Your task to perform on an android device: Open Youtube and go to "Your channel" Image 0: 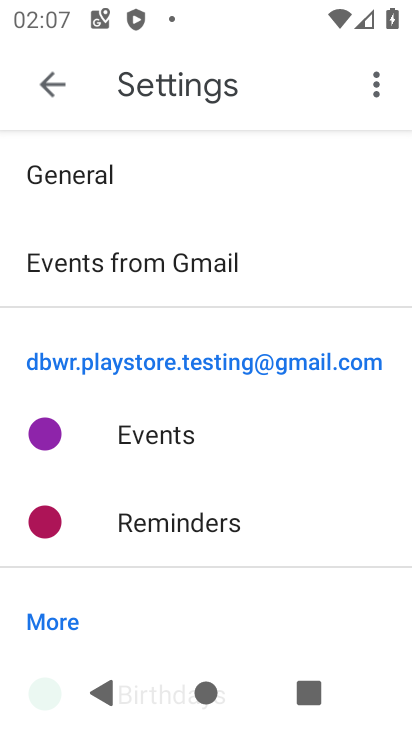
Step 0: press home button
Your task to perform on an android device: Open Youtube and go to "Your channel" Image 1: 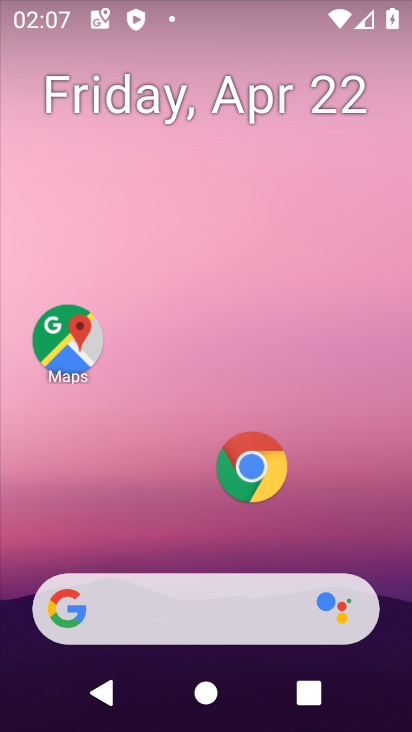
Step 1: drag from (109, 286) to (101, 177)
Your task to perform on an android device: Open Youtube and go to "Your channel" Image 2: 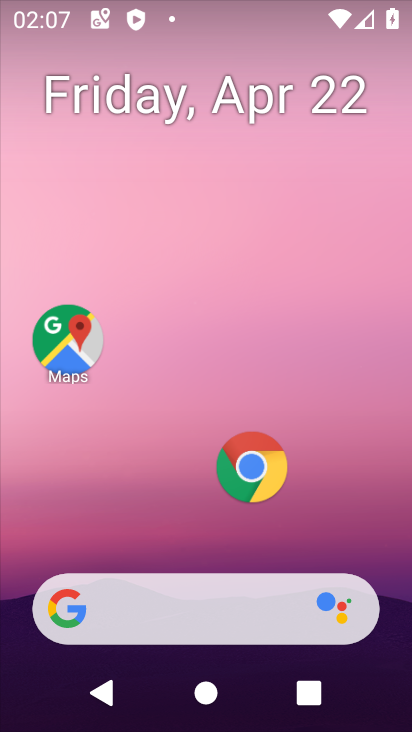
Step 2: drag from (169, 535) to (173, 58)
Your task to perform on an android device: Open Youtube and go to "Your channel" Image 3: 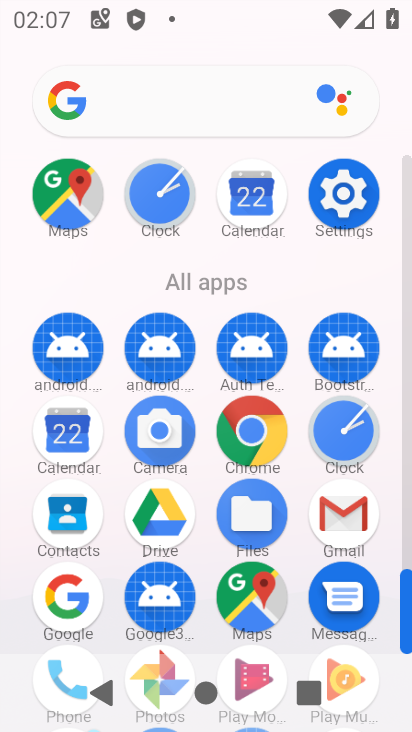
Step 3: drag from (194, 576) to (173, 186)
Your task to perform on an android device: Open Youtube and go to "Your channel" Image 4: 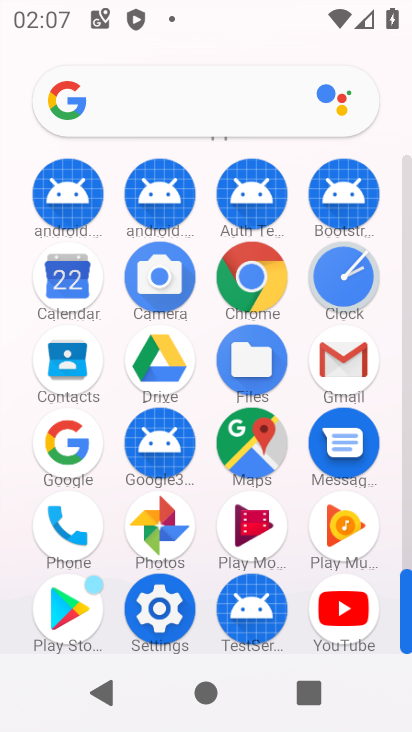
Step 4: click (353, 601)
Your task to perform on an android device: Open Youtube and go to "Your channel" Image 5: 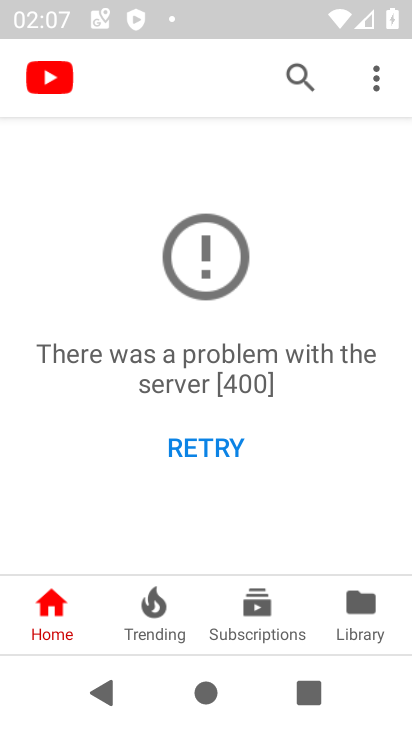
Step 5: click (379, 75)
Your task to perform on an android device: Open Youtube and go to "Your channel" Image 6: 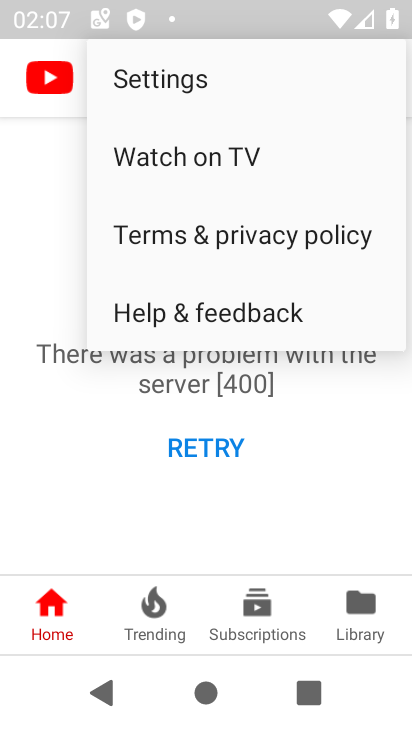
Step 6: task complete